Your task to perform on an android device: empty trash in the gmail app Image 0: 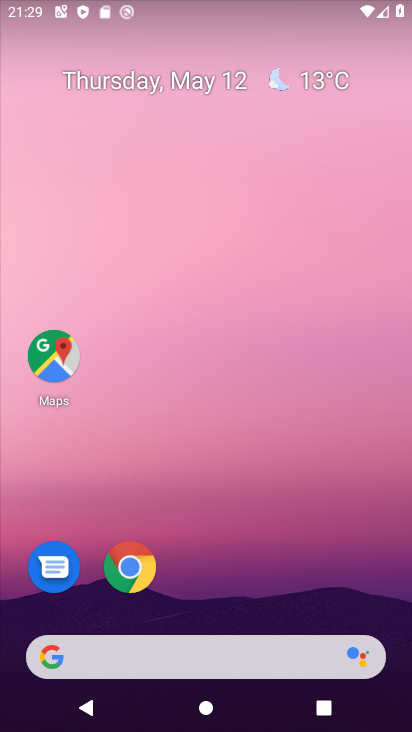
Step 0: drag from (229, 598) to (229, 0)
Your task to perform on an android device: empty trash in the gmail app Image 1: 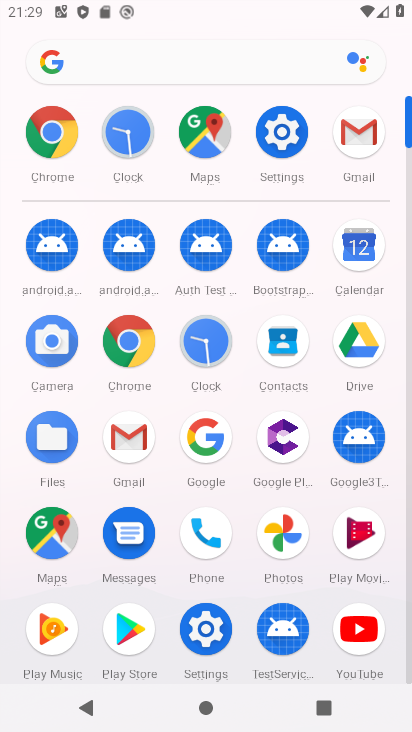
Step 1: click (356, 132)
Your task to perform on an android device: empty trash in the gmail app Image 2: 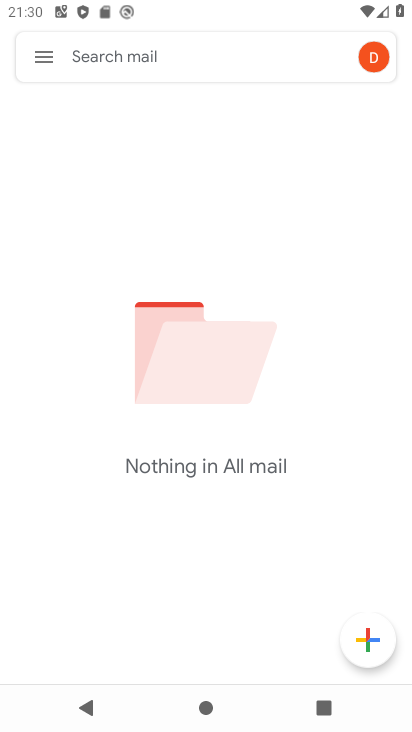
Step 2: click (29, 58)
Your task to perform on an android device: empty trash in the gmail app Image 3: 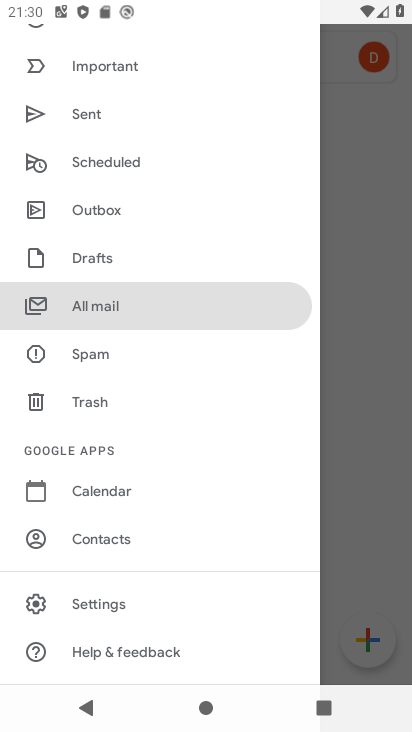
Step 3: click (119, 399)
Your task to perform on an android device: empty trash in the gmail app Image 4: 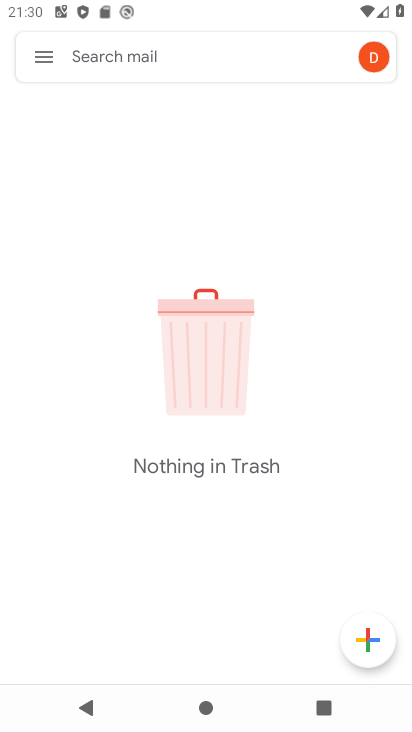
Step 4: task complete